Your task to perform on an android device: allow notifications from all sites in the chrome app Image 0: 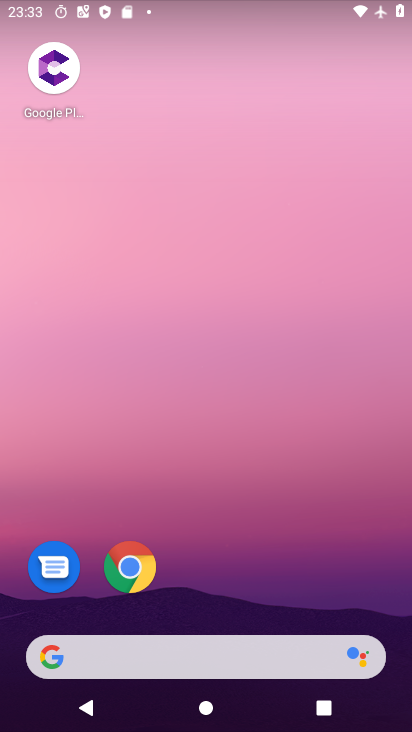
Step 0: drag from (270, 533) to (250, 413)
Your task to perform on an android device: allow notifications from all sites in the chrome app Image 1: 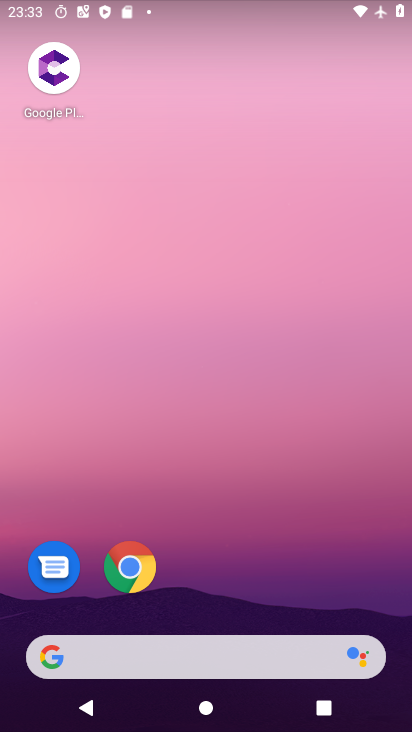
Step 1: drag from (231, 602) to (249, 268)
Your task to perform on an android device: allow notifications from all sites in the chrome app Image 2: 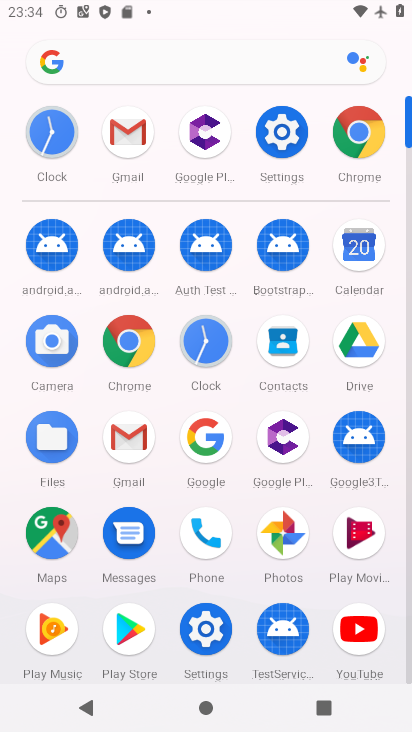
Step 2: click (353, 129)
Your task to perform on an android device: allow notifications from all sites in the chrome app Image 3: 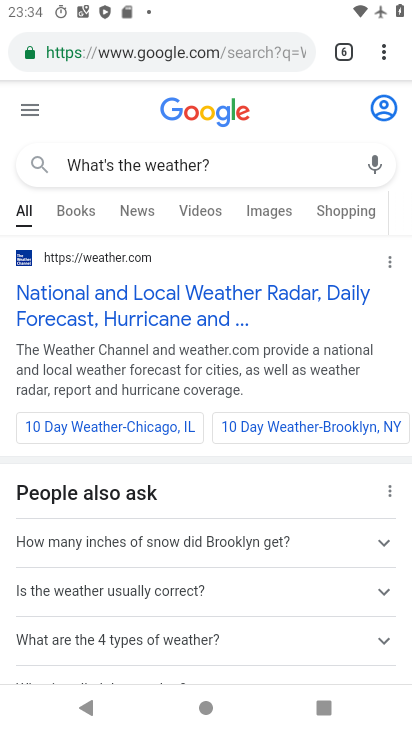
Step 3: click (390, 50)
Your task to perform on an android device: allow notifications from all sites in the chrome app Image 4: 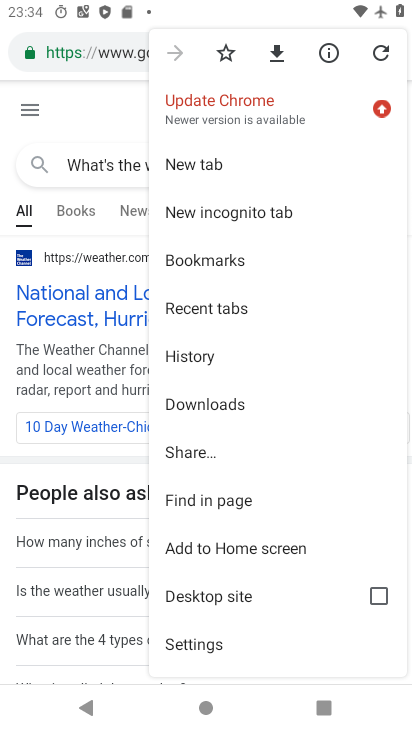
Step 4: click (212, 642)
Your task to perform on an android device: allow notifications from all sites in the chrome app Image 5: 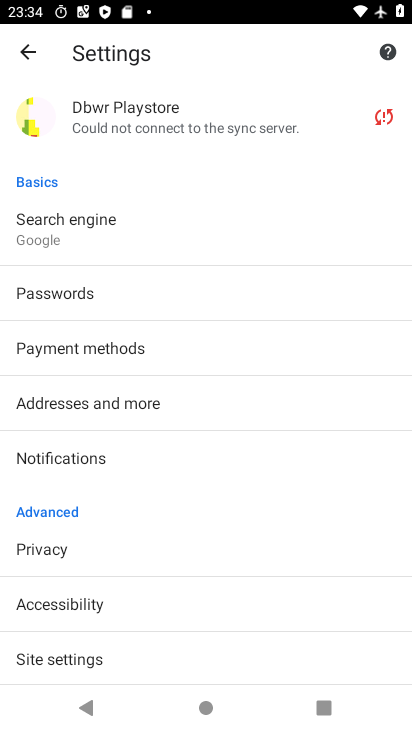
Step 5: click (101, 653)
Your task to perform on an android device: allow notifications from all sites in the chrome app Image 6: 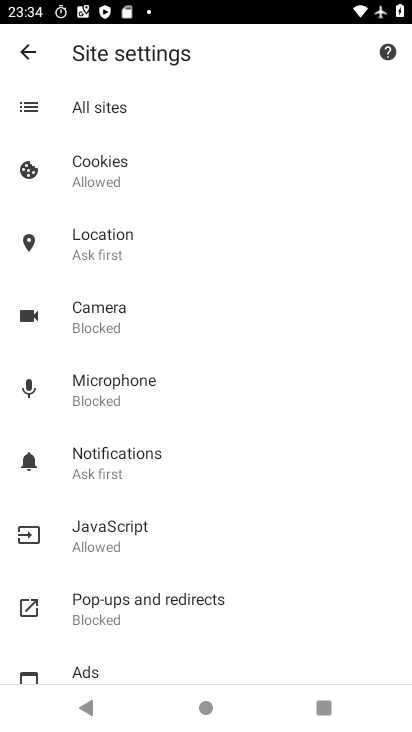
Step 6: click (120, 168)
Your task to perform on an android device: allow notifications from all sites in the chrome app Image 7: 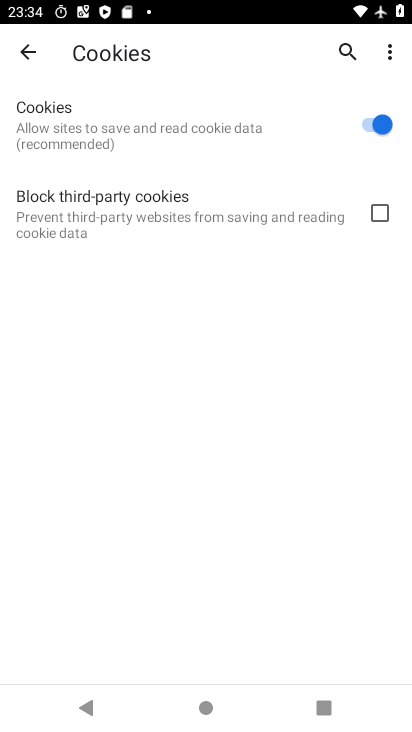
Step 7: click (12, 44)
Your task to perform on an android device: allow notifications from all sites in the chrome app Image 8: 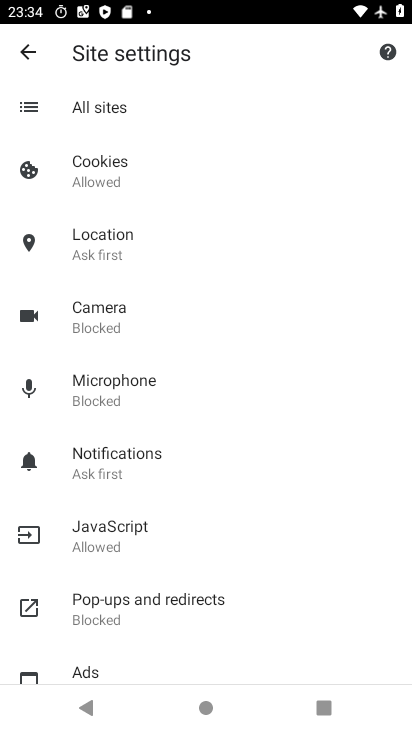
Step 8: click (152, 245)
Your task to perform on an android device: allow notifications from all sites in the chrome app Image 9: 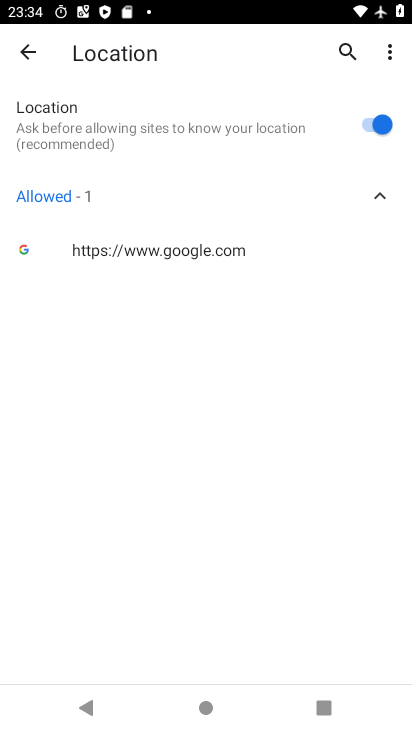
Step 9: click (27, 44)
Your task to perform on an android device: allow notifications from all sites in the chrome app Image 10: 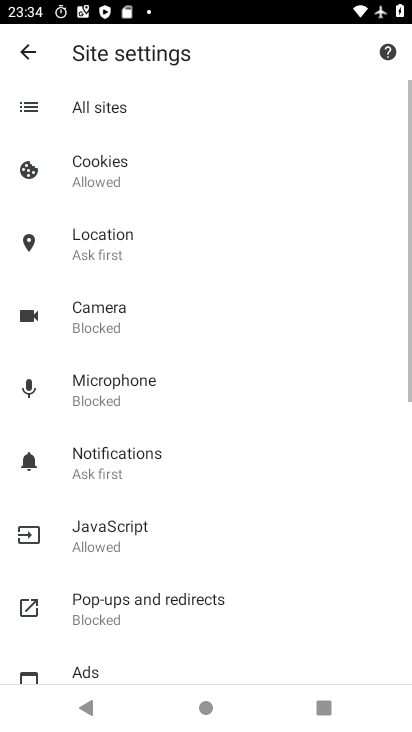
Step 10: click (158, 302)
Your task to perform on an android device: allow notifications from all sites in the chrome app Image 11: 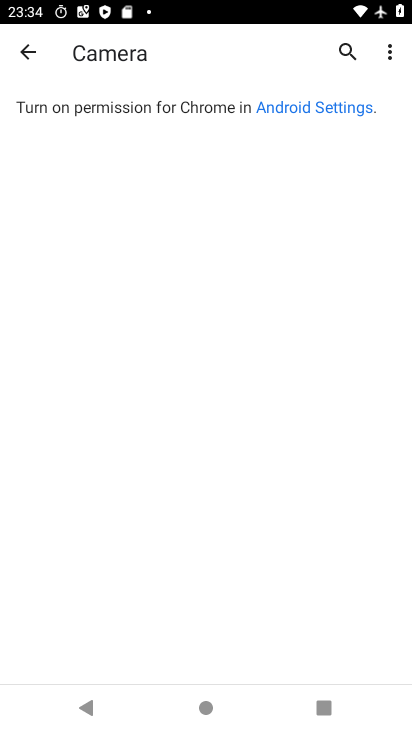
Step 11: click (31, 45)
Your task to perform on an android device: allow notifications from all sites in the chrome app Image 12: 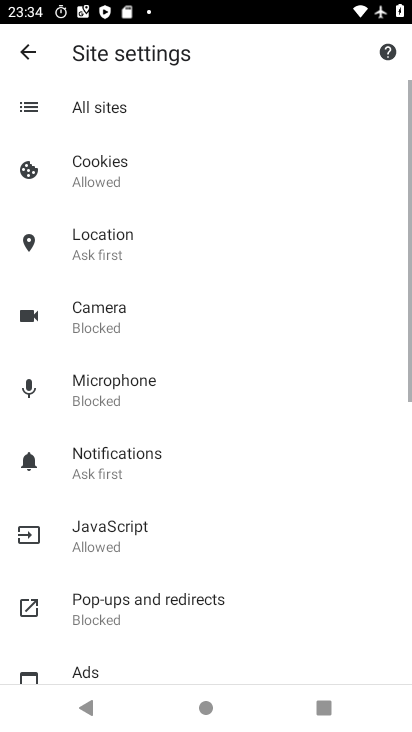
Step 12: click (152, 390)
Your task to perform on an android device: allow notifications from all sites in the chrome app Image 13: 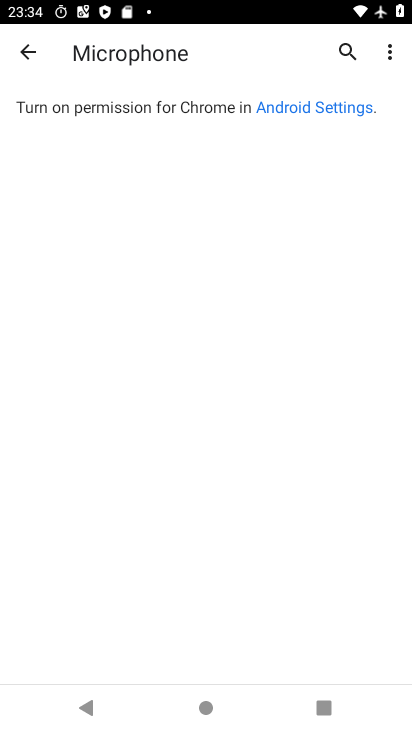
Step 13: click (32, 55)
Your task to perform on an android device: allow notifications from all sites in the chrome app Image 14: 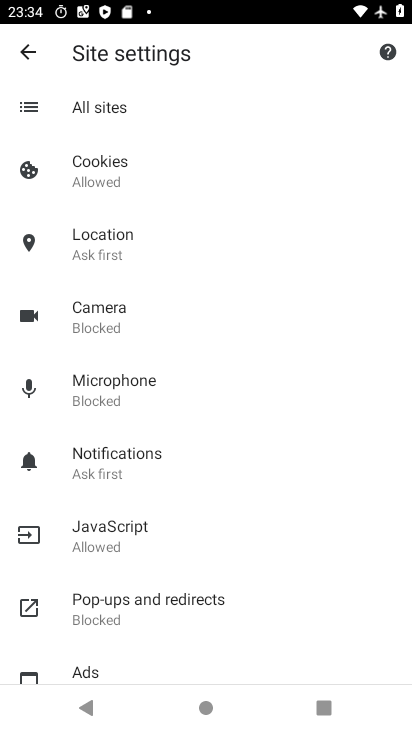
Step 14: click (95, 456)
Your task to perform on an android device: allow notifications from all sites in the chrome app Image 15: 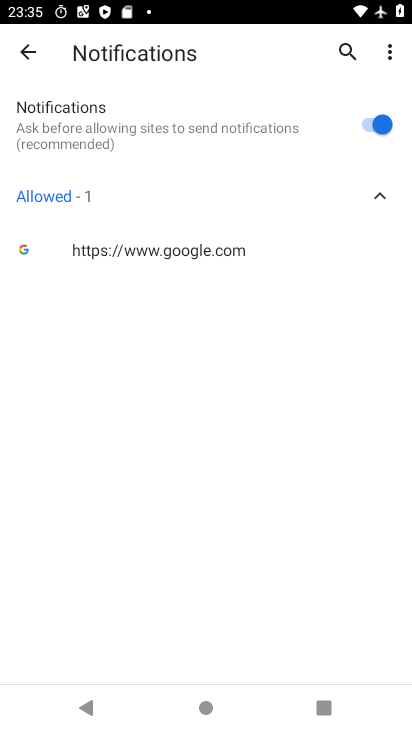
Step 15: click (30, 51)
Your task to perform on an android device: allow notifications from all sites in the chrome app Image 16: 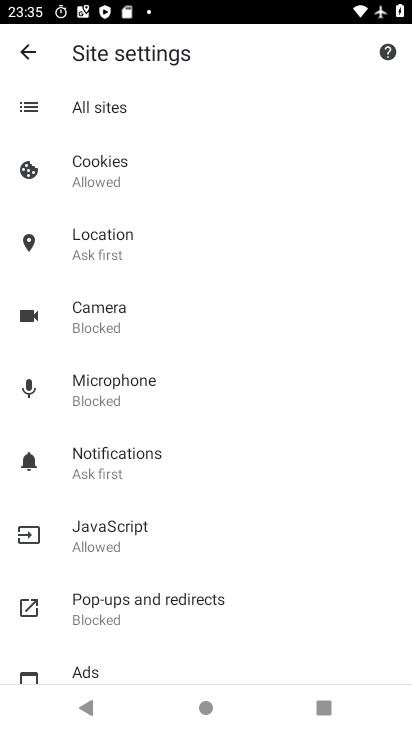
Step 16: click (126, 545)
Your task to perform on an android device: allow notifications from all sites in the chrome app Image 17: 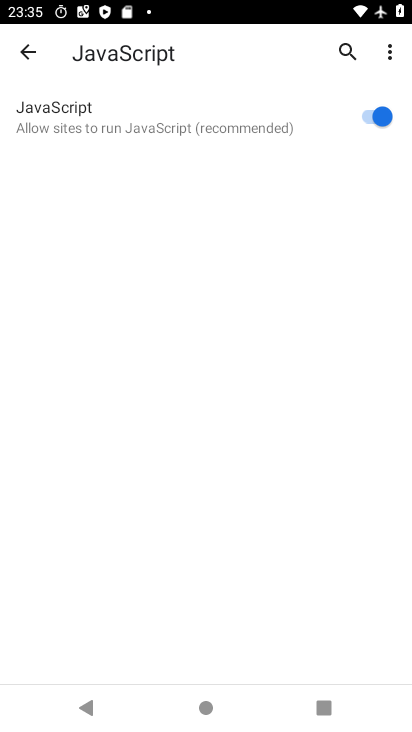
Step 17: click (27, 39)
Your task to perform on an android device: allow notifications from all sites in the chrome app Image 18: 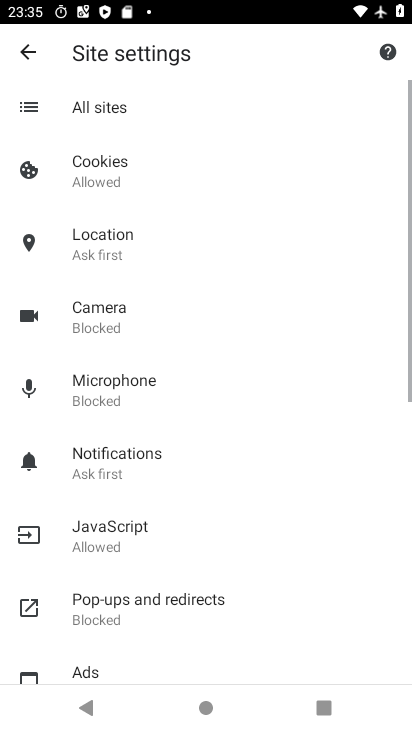
Step 18: task complete